Your task to perform on an android device: Open Yahoo.com Image 0: 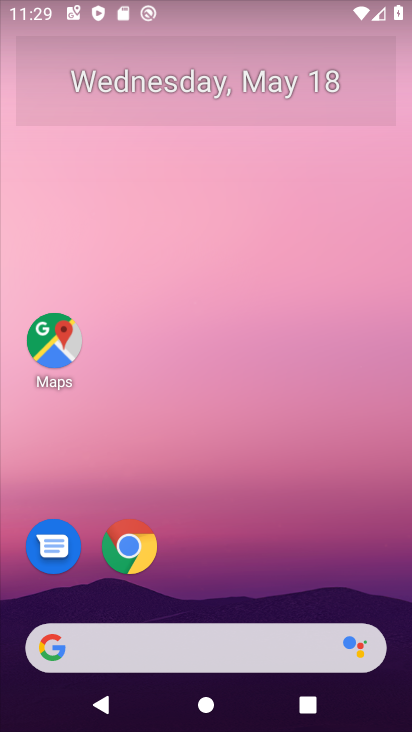
Step 0: click (227, 543)
Your task to perform on an android device: Open Yahoo.com Image 1: 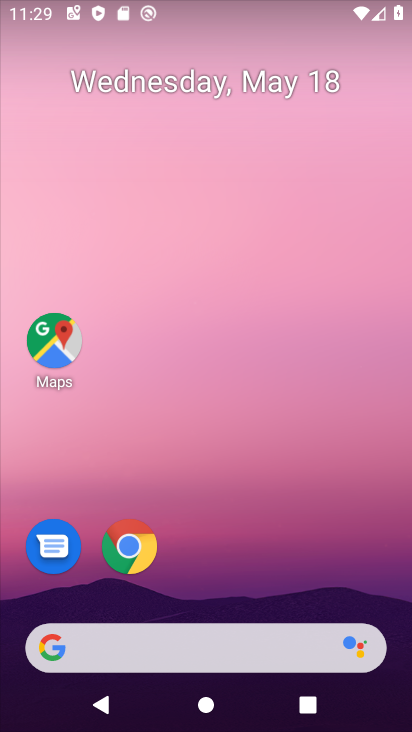
Step 1: click (130, 545)
Your task to perform on an android device: Open Yahoo.com Image 2: 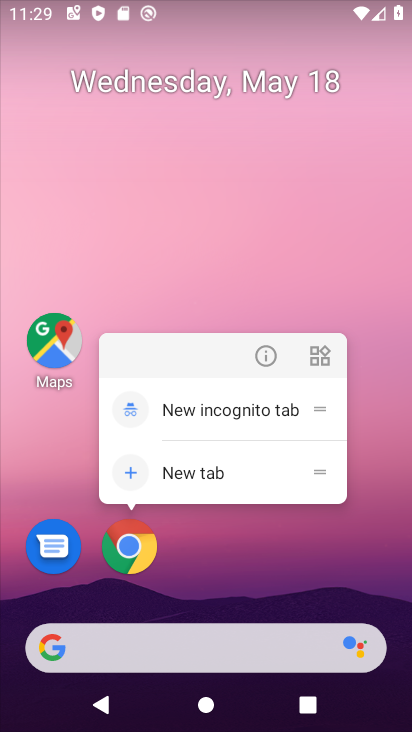
Step 2: click (137, 545)
Your task to perform on an android device: Open Yahoo.com Image 3: 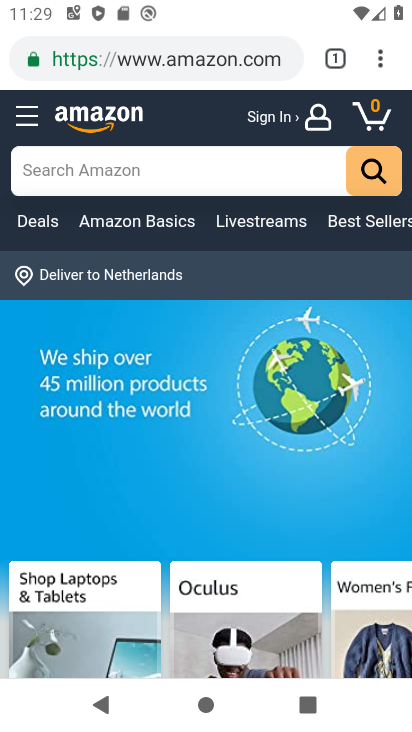
Step 3: press back button
Your task to perform on an android device: Open Yahoo.com Image 4: 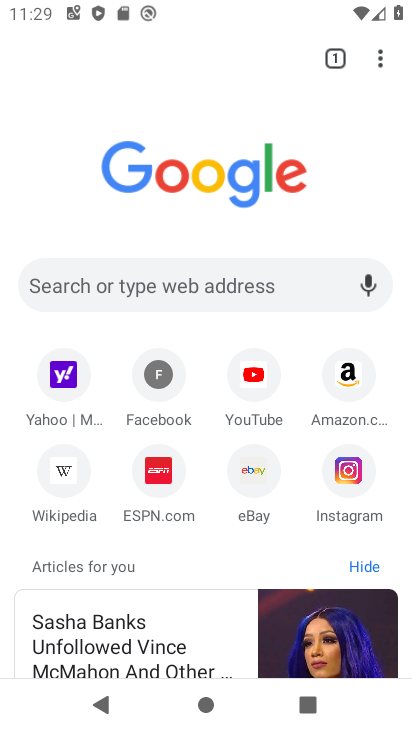
Step 4: click (59, 381)
Your task to perform on an android device: Open Yahoo.com Image 5: 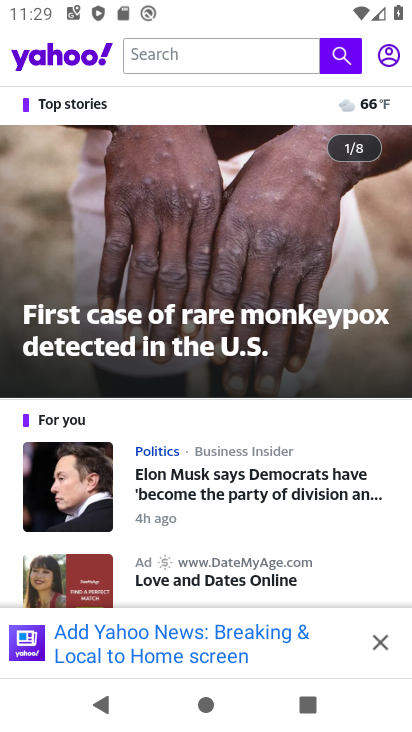
Step 5: task complete